Your task to perform on an android device: change alarm snooze length Image 0: 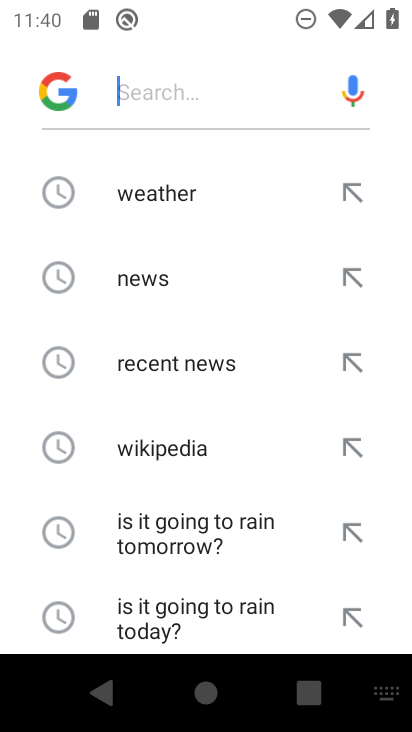
Step 0: press home button
Your task to perform on an android device: change alarm snooze length Image 1: 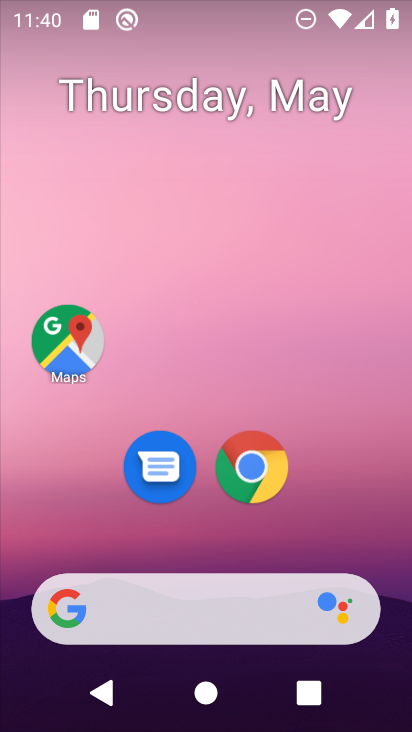
Step 1: drag from (201, 563) to (239, 170)
Your task to perform on an android device: change alarm snooze length Image 2: 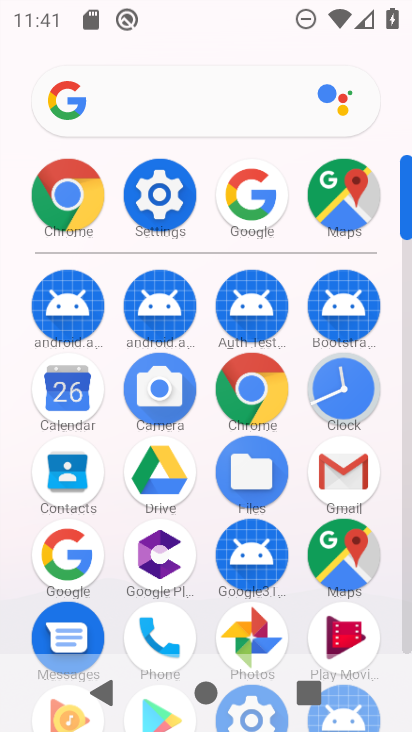
Step 2: drag from (204, 268) to (240, 77)
Your task to perform on an android device: change alarm snooze length Image 3: 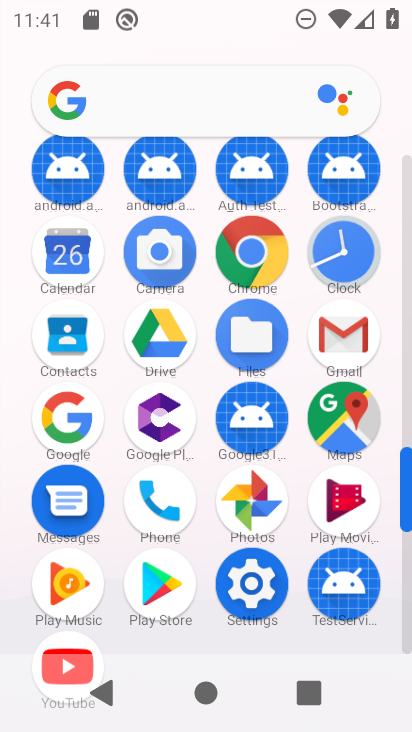
Step 3: click (239, 583)
Your task to perform on an android device: change alarm snooze length Image 4: 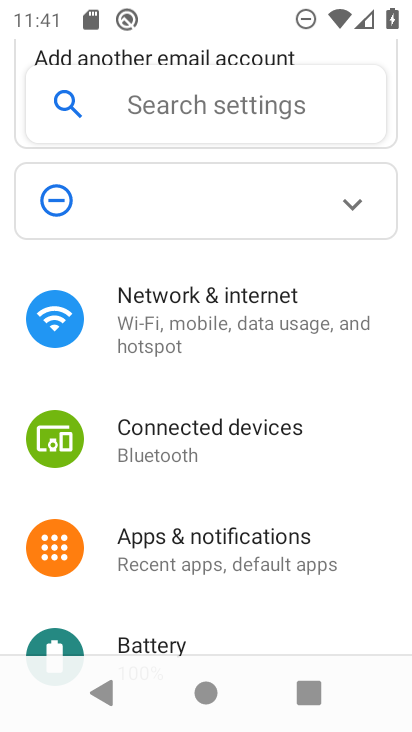
Step 4: drag from (223, 635) to (232, 251)
Your task to perform on an android device: change alarm snooze length Image 5: 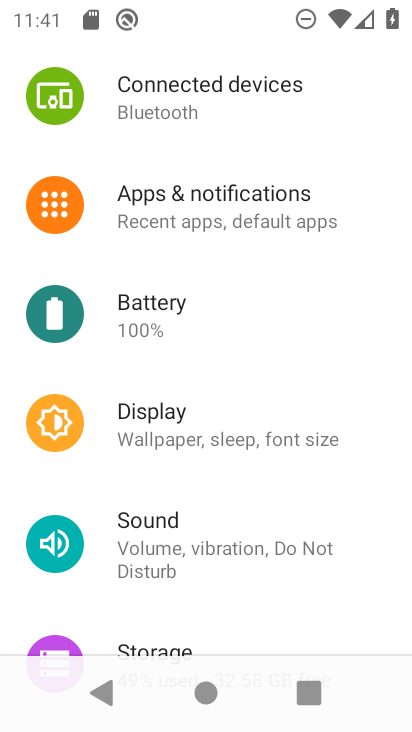
Step 5: drag from (205, 545) to (216, 382)
Your task to perform on an android device: change alarm snooze length Image 6: 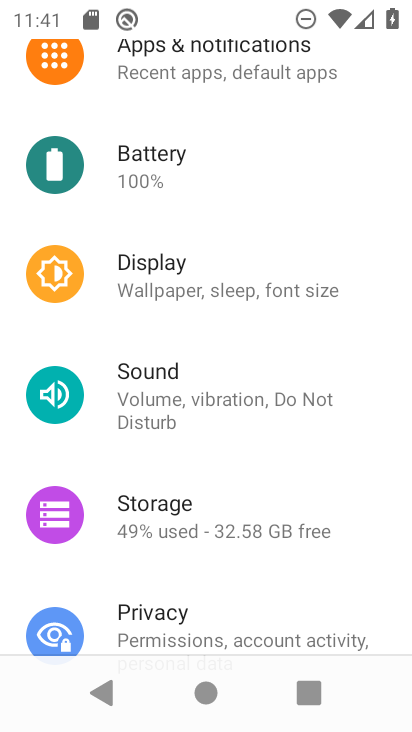
Step 6: press home button
Your task to perform on an android device: change alarm snooze length Image 7: 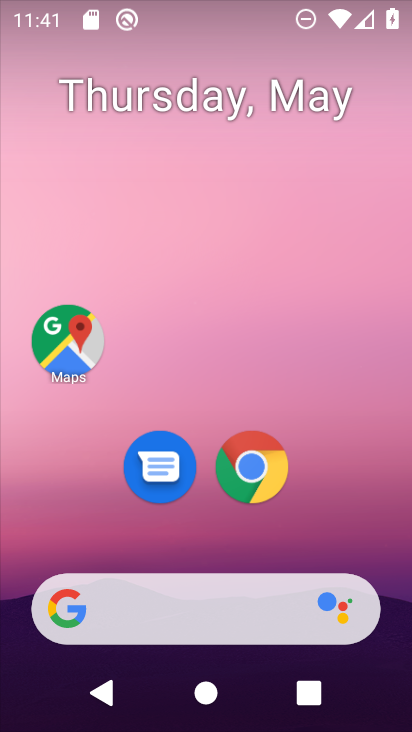
Step 7: drag from (182, 534) to (231, 259)
Your task to perform on an android device: change alarm snooze length Image 8: 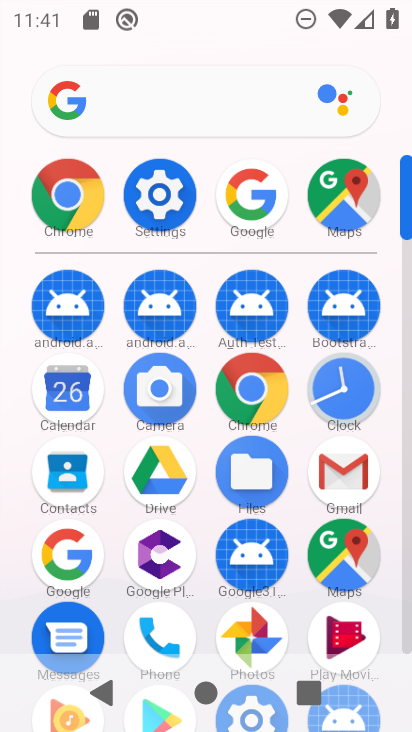
Step 8: click (333, 404)
Your task to perform on an android device: change alarm snooze length Image 9: 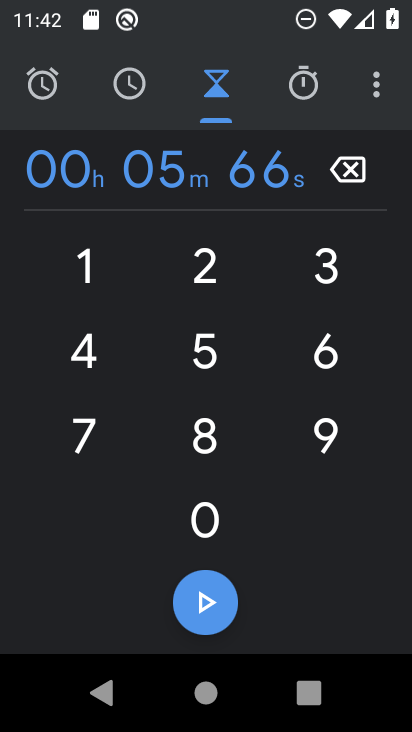
Step 9: click (379, 94)
Your task to perform on an android device: change alarm snooze length Image 10: 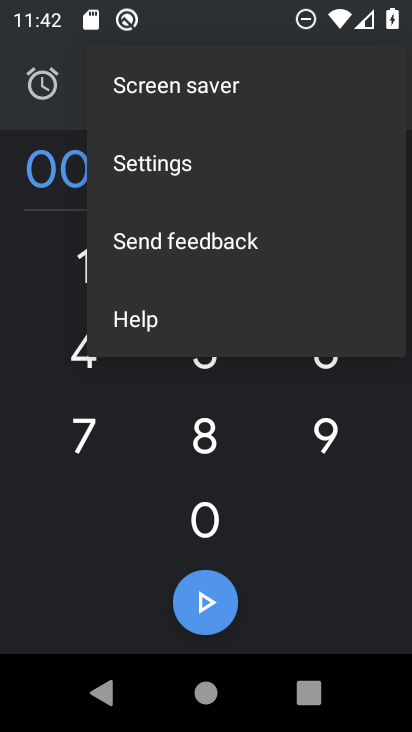
Step 10: click (210, 176)
Your task to perform on an android device: change alarm snooze length Image 11: 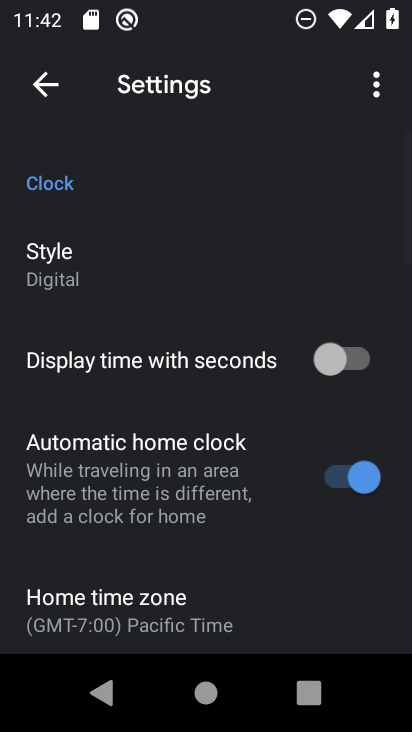
Step 11: drag from (205, 478) to (225, 106)
Your task to perform on an android device: change alarm snooze length Image 12: 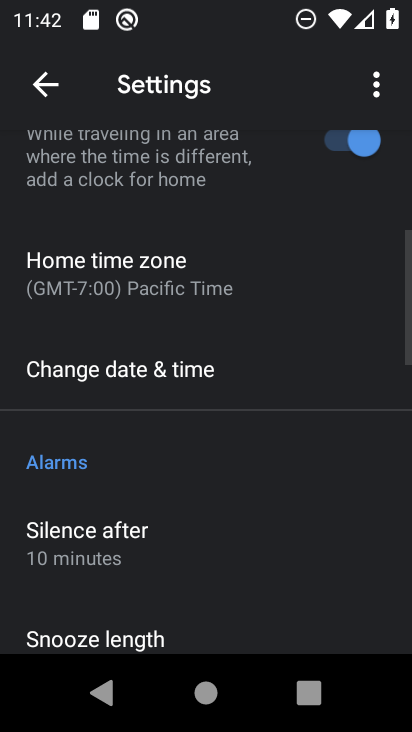
Step 12: drag from (144, 517) to (187, 181)
Your task to perform on an android device: change alarm snooze length Image 13: 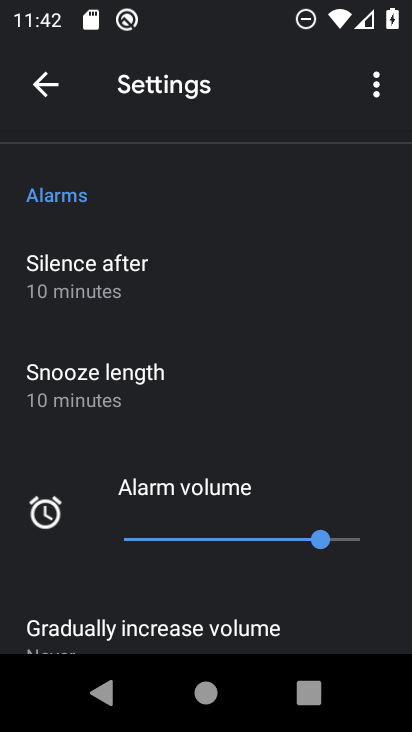
Step 13: drag from (139, 515) to (139, 326)
Your task to perform on an android device: change alarm snooze length Image 14: 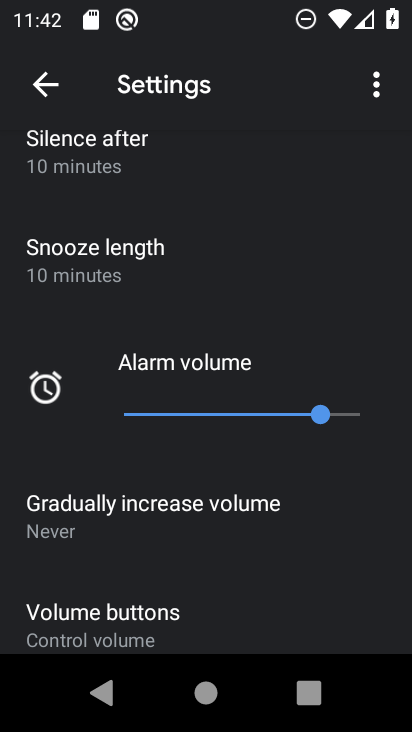
Step 14: click (137, 271)
Your task to perform on an android device: change alarm snooze length Image 15: 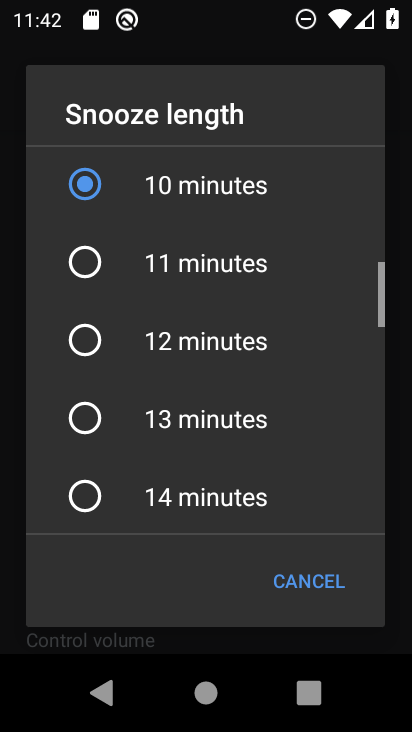
Step 15: click (180, 336)
Your task to perform on an android device: change alarm snooze length Image 16: 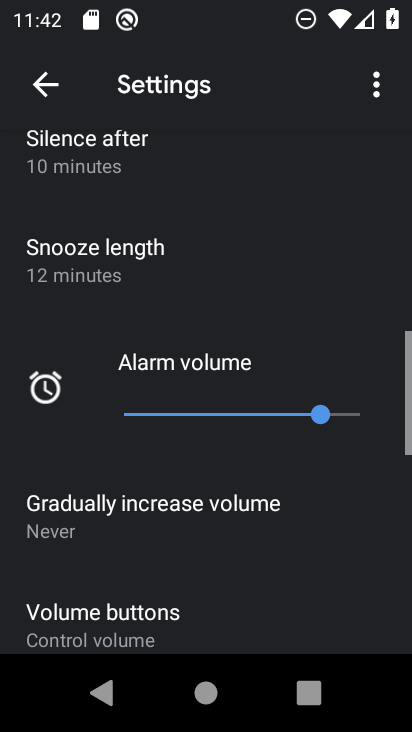
Step 16: task complete